Your task to perform on an android device: uninstall "DoorDash - Dasher" Image 0: 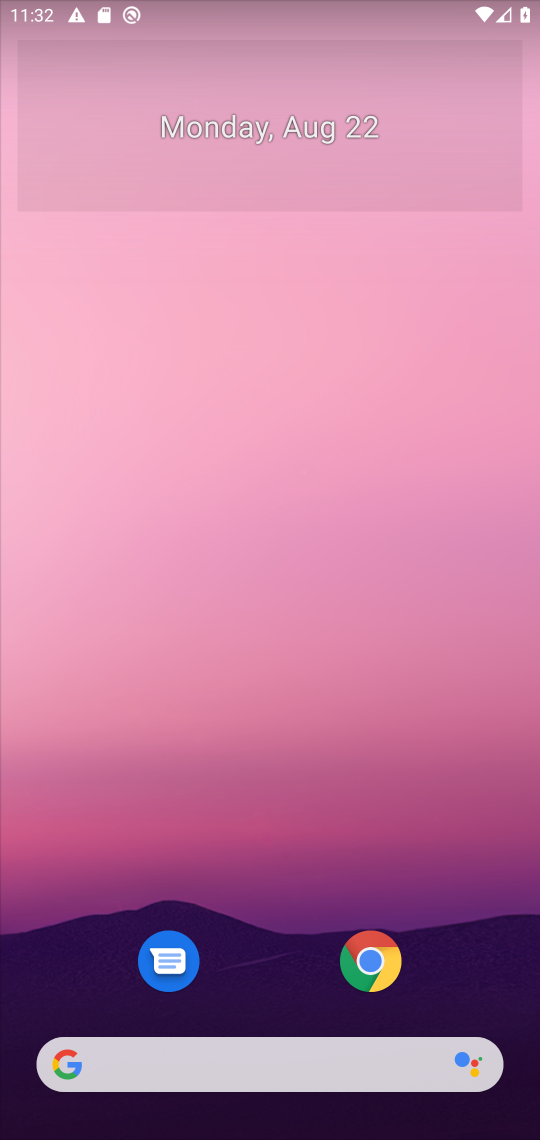
Step 0: drag from (276, 1006) to (263, 101)
Your task to perform on an android device: uninstall "DoorDash - Dasher" Image 1: 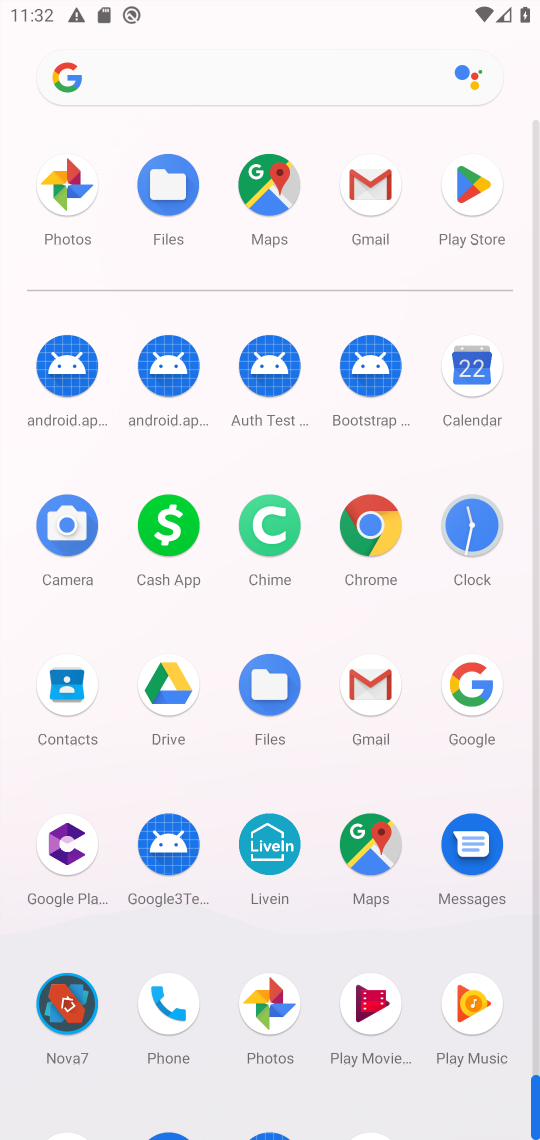
Step 1: task complete